Your task to perform on an android device: Open eBay Image 0: 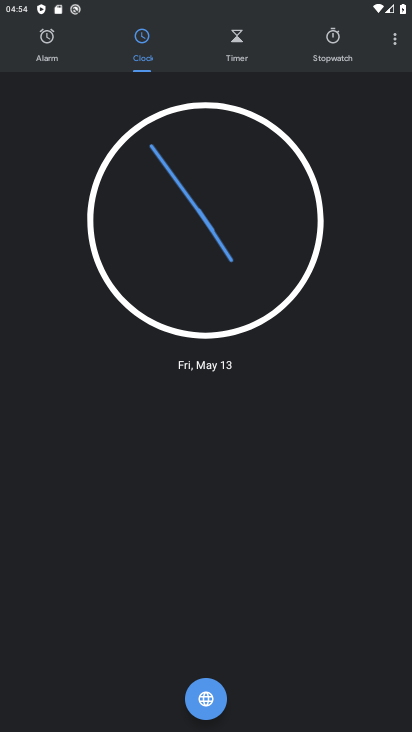
Step 0: press back button
Your task to perform on an android device: Open eBay Image 1: 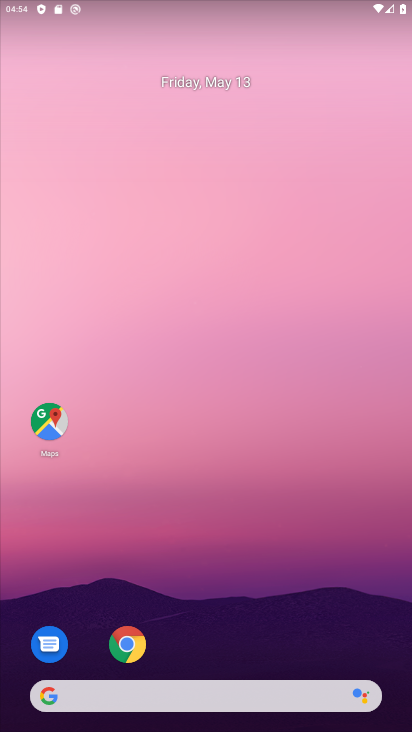
Step 1: click (134, 631)
Your task to perform on an android device: Open eBay Image 2: 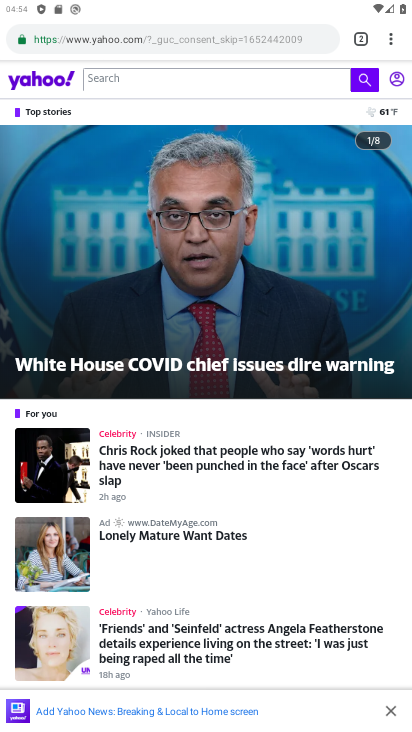
Step 2: click (356, 34)
Your task to perform on an android device: Open eBay Image 3: 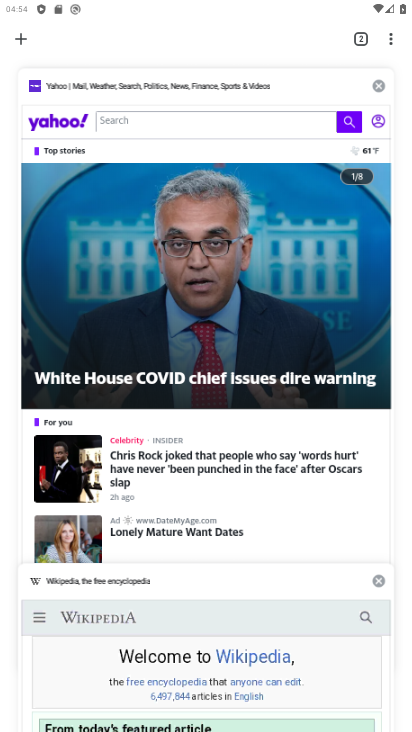
Step 3: click (8, 40)
Your task to perform on an android device: Open eBay Image 4: 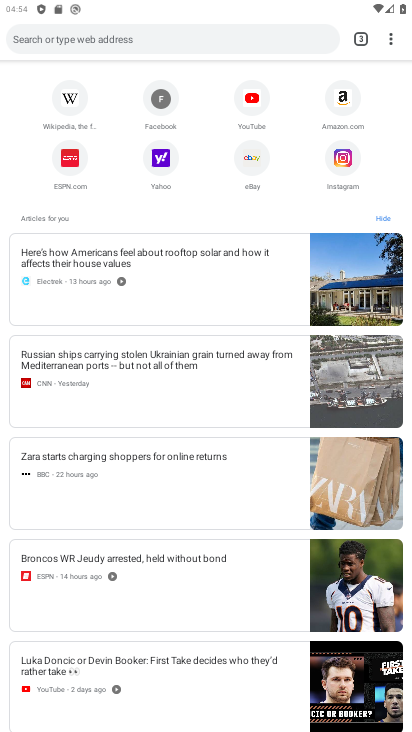
Step 4: click (79, 42)
Your task to perform on an android device: Open eBay Image 5: 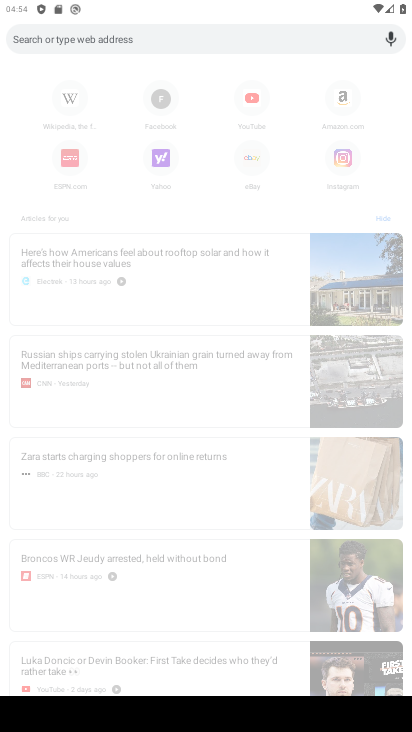
Step 5: type "ebay"
Your task to perform on an android device: Open eBay Image 6: 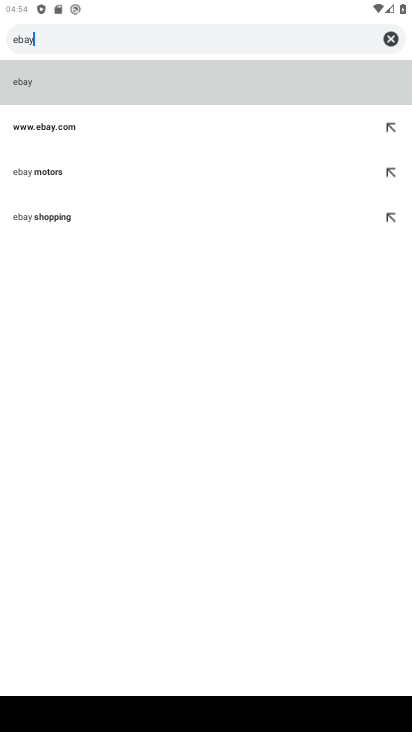
Step 6: click (73, 75)
Your task to perform on an android device: Open eBay Image 7: 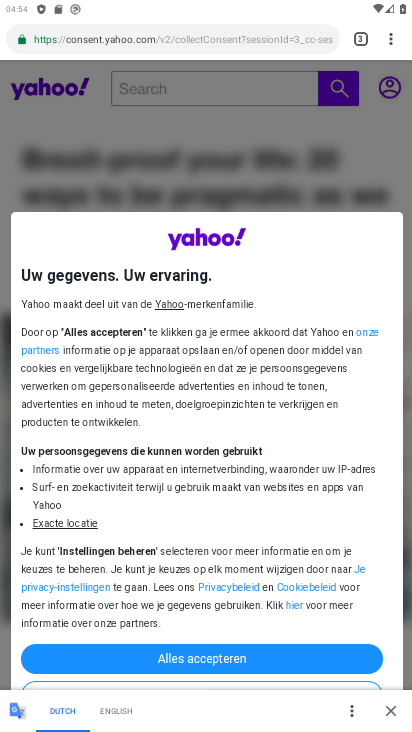
Step 7: task complete